Your task to perform on an android device: turn on improve location accuracy Image 0: 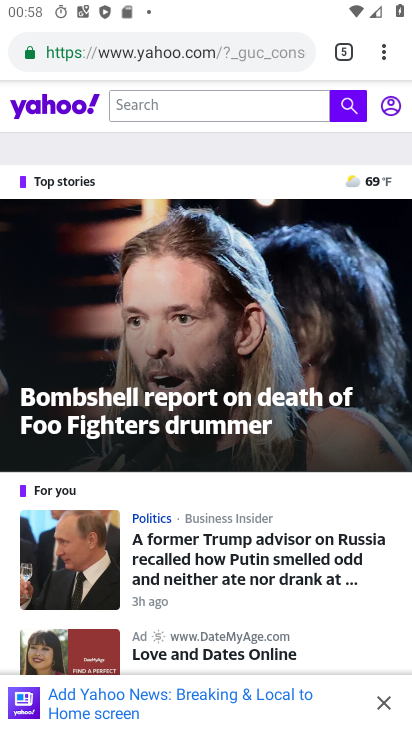
Step 0: press home button
Your task to perform on an android device: turn on improve location accuracy Image 1: 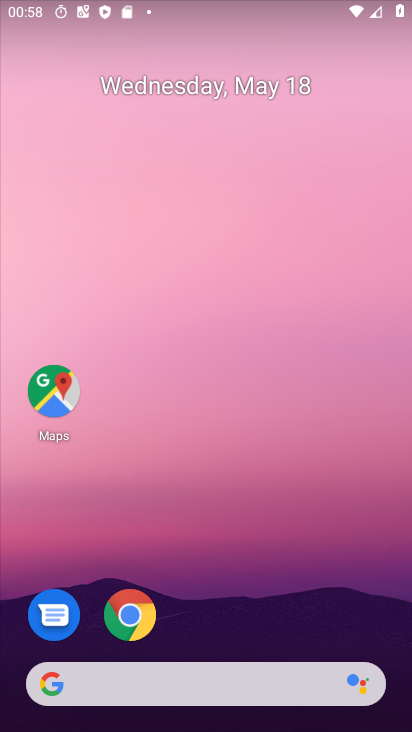
Step 1: drag from (262, 636) to (258, 126)
Your task to perform on an android device: turn on improve location accuracy Image 2: 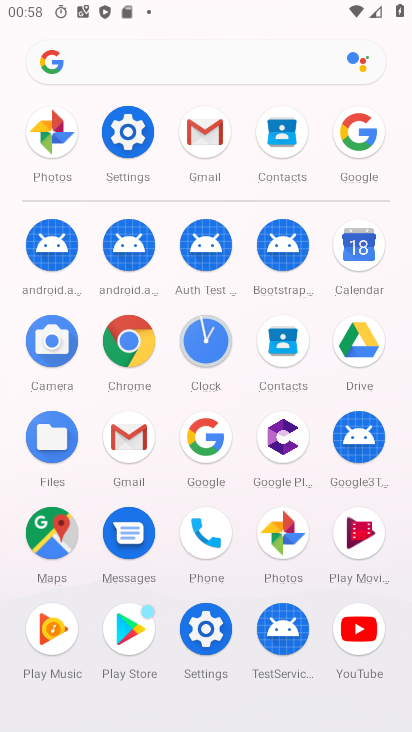
Step 2: click (110, 146)
Your task to perform on an android device: turn on improve location accuracy Image 3: 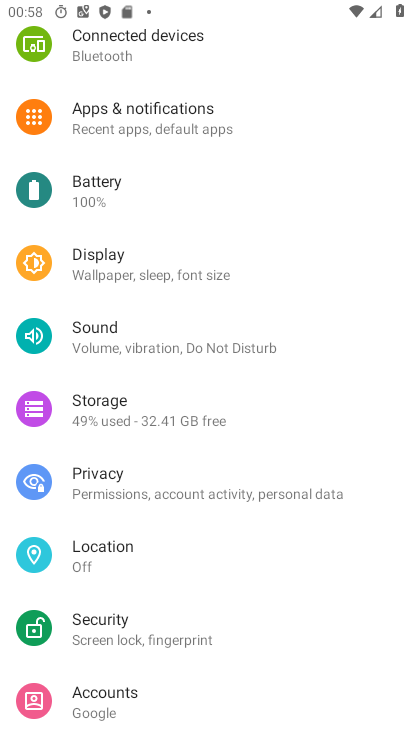
Step 3: click (160, 567)
Your task to perform on an android device: turn on improve location accuracy Image 4: 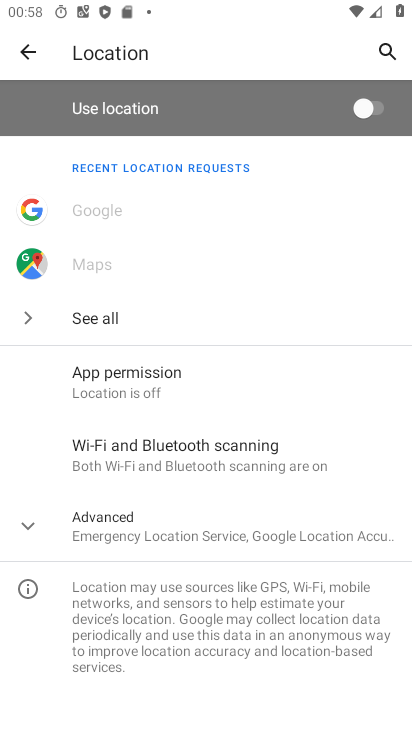
Step 4: click (173, 532)
Your task to perform on an android device: turn on improve location accuracy Image 5: 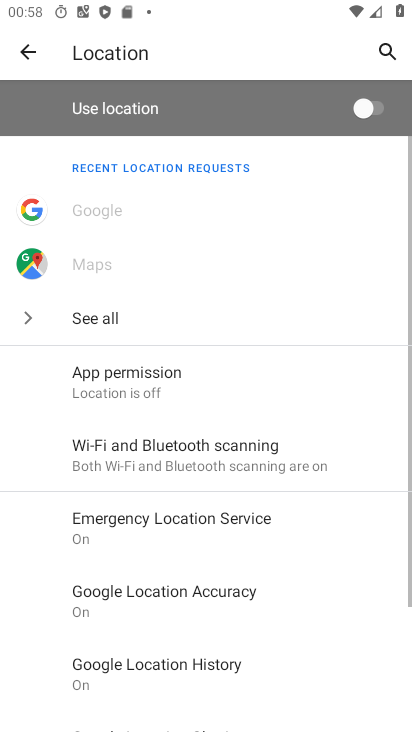
Step 5: drag from (173, 532) to (206, 335)
Your task to perform on an android device: turn on improve location accuracy Image 6: 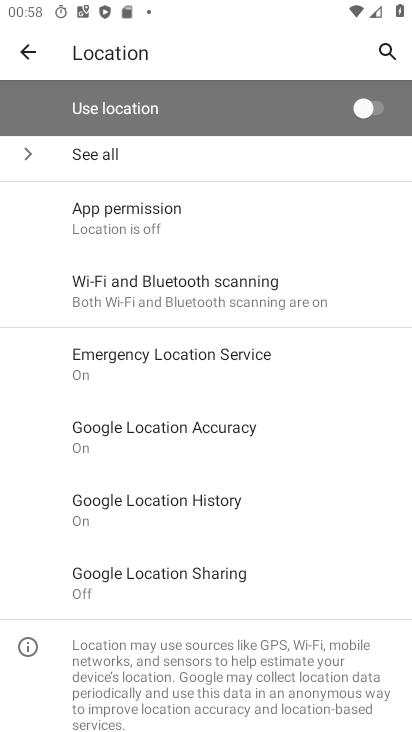
Step 6: click (208, 422)
Your task to perform on an android device: turn on improve location accuracy Image 7: 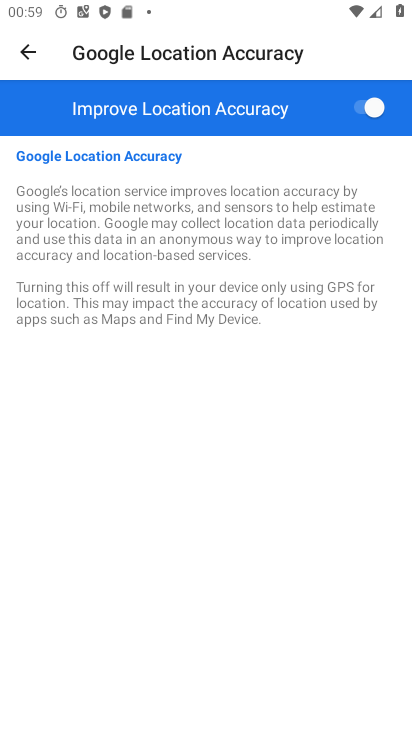
Step 7: task complete